Your task to perform on an android device: Open Google Chrome Image 0: 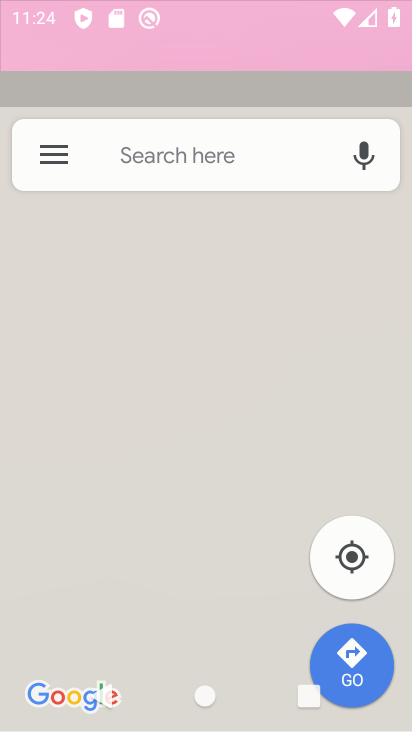
Step 0: click (256, 505)
Your task to perform on an android device: Open Google Chrome Image 1: 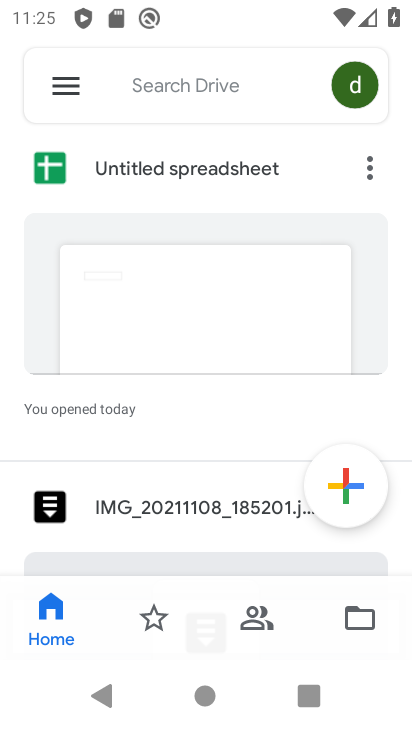
Step 1: press home button
Your task to perform on an android device: Open Google Chrome Image 2: 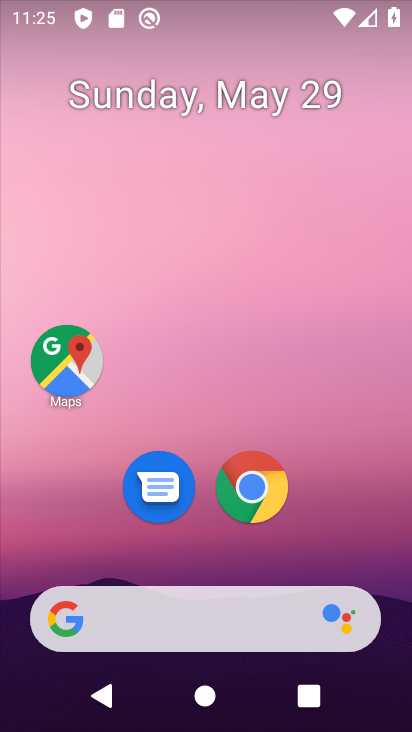
Step 2: click (258, 488)
Your task to perform on an android device: Open Google Chrome Image 3: 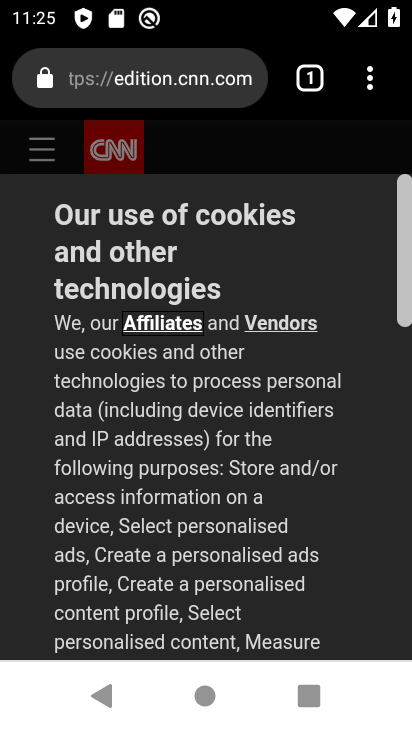
Step 3: task complete